Your task to perform on an android device: open app "Airtel Thanks" (install if not already installed) Image 0: 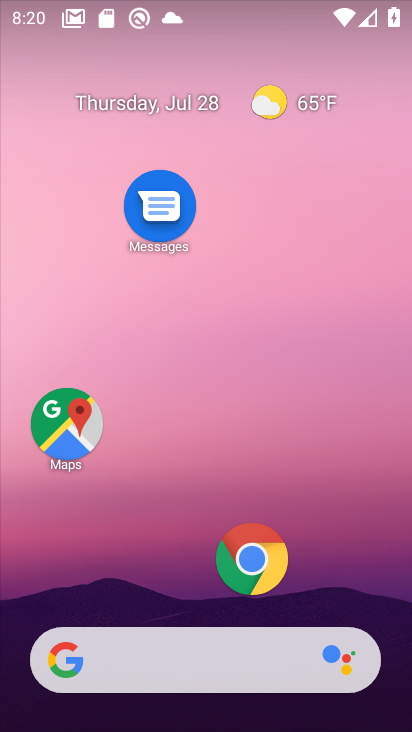
Step 0: drag from (163, 581) to (185, 178)
Your task to perform on an android device: open app "Airtel Thanks" (install if not already installed) Image 1: 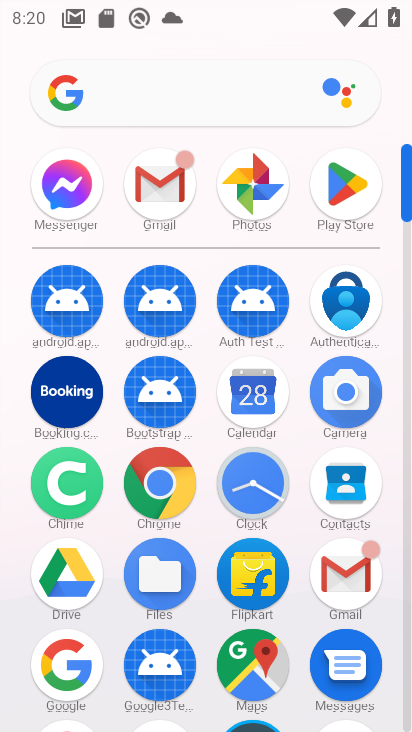
Step 1: click (346, 184)
Your task to perform on an android device: open app "Airtel Thanks" (install if not already installed) Image 2: 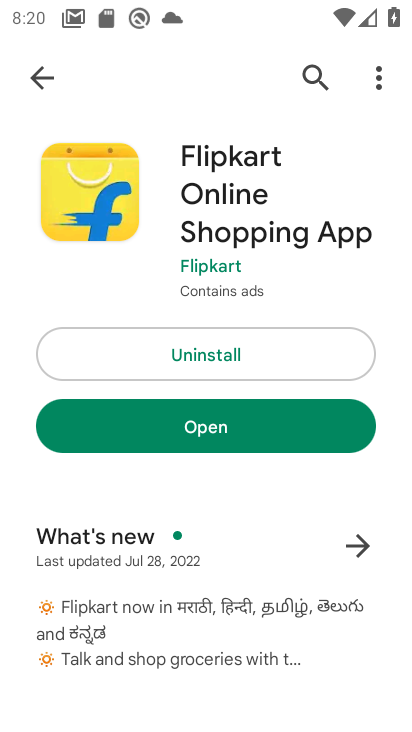
Step 2: click (40, 80)
Your task to perform on an android device: open app "Airtel Thanks" (install if not already installed) Image 3: 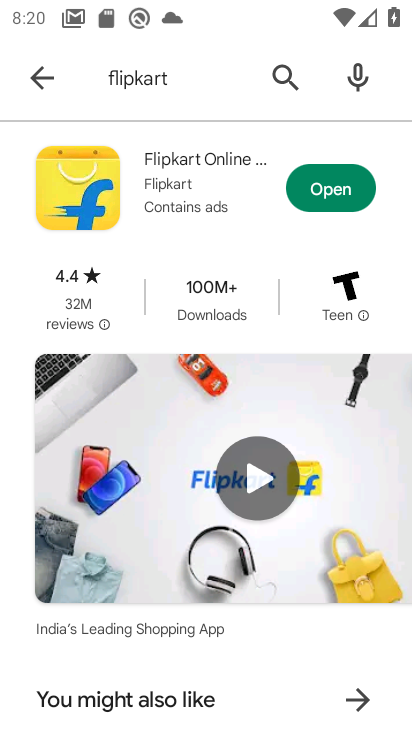
Step 3: click (146, 85)
Your task to perform on an android device: open app "Airtel Thanks" (install if not already installed) Image 4: 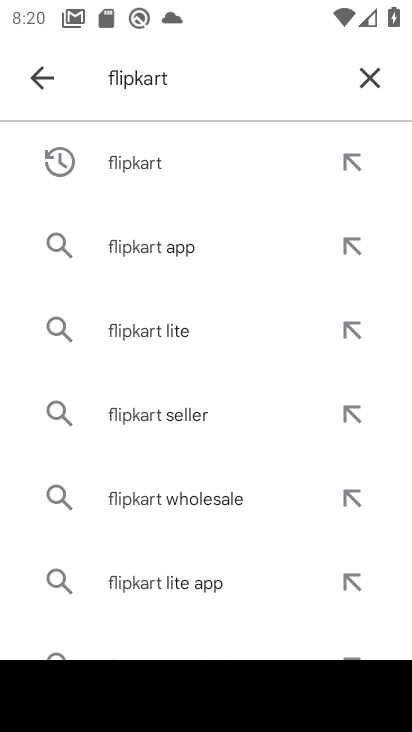
Step 4: click (365, 68)
Your task to perform on an android device: open app "Airtel Thanks" (install if not already installed) Image 5: 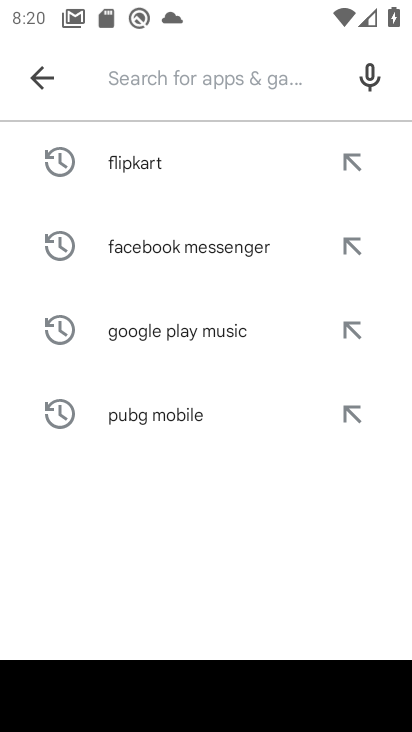
Step 5: type "Airtel Thanks"
Your task to perform on an android device: open app "Airtel Thanks" (install if not already installed) Image 6: 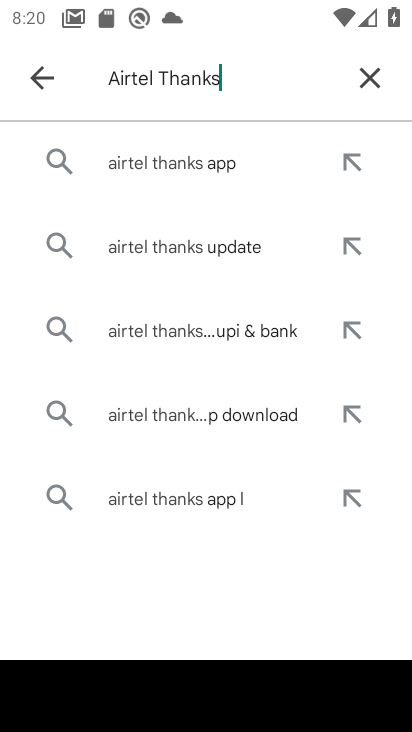
Step 6: click (175, 168)
Your task to perform on an android device: open app "Airtel Thanks" (install if not already installed) Image 7: 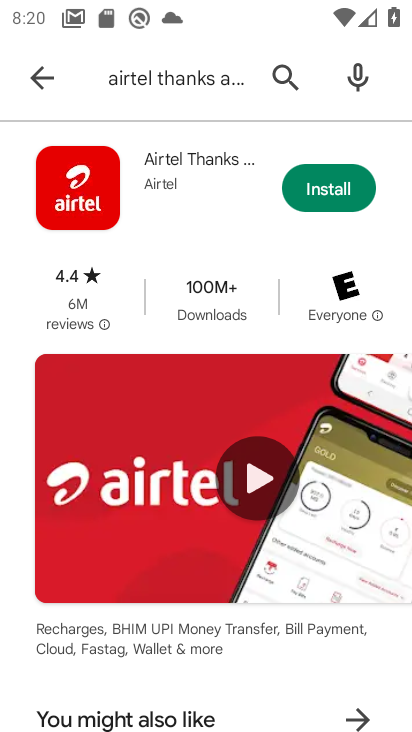
Step 7: click (331, 174)
Your task to perform on an android device: open app "Airtel Thanks" (install if not already installed) Image 8: 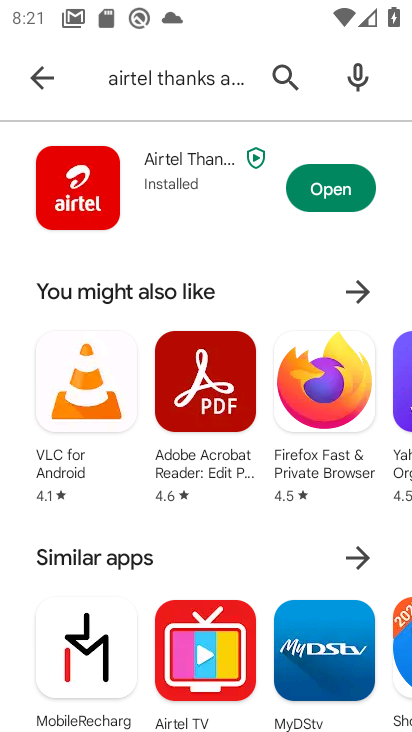
Step 8: click (332, 196)
Your task to perform on an android device: open app "Airtel Thanks" (install if not already installed) Image 9: 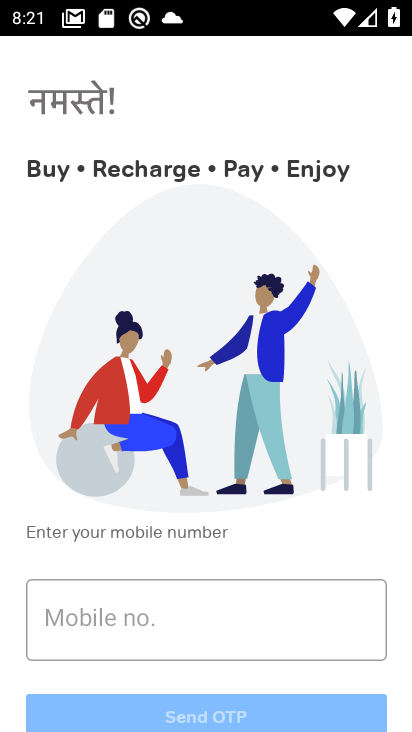
Step 9: task complete